Your task to perform on an android device: Open internet settings Image 0: 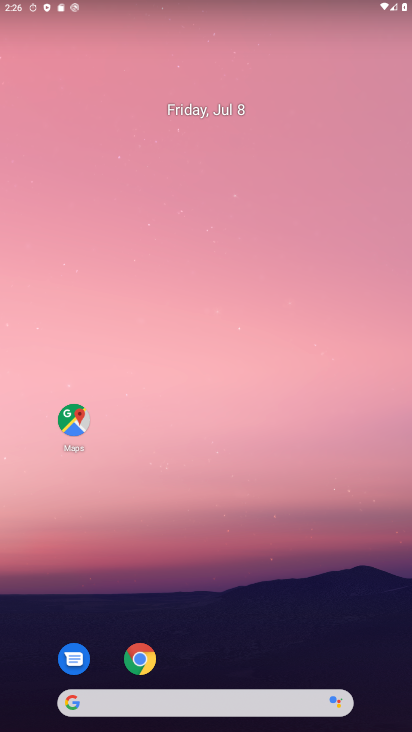
Step 0: drag from (255, 606) to (358, 29)
Your task to perform on an android device: Open internet settings Image 1: 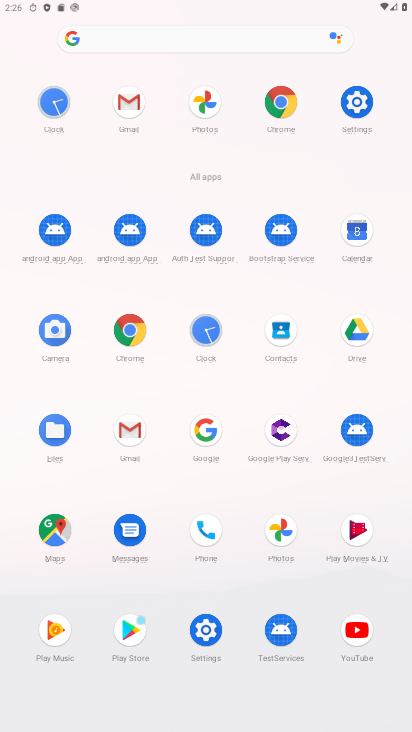
Step 1: click (358, 107)
Your task to perform on an android device: Open internet settings Image 2: 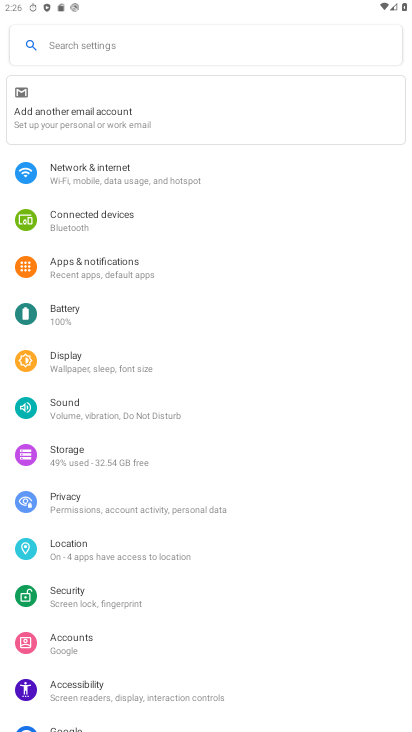
Step 2: click (218, 174)
Your task to perform on an android device: Open internet settings Image 3: 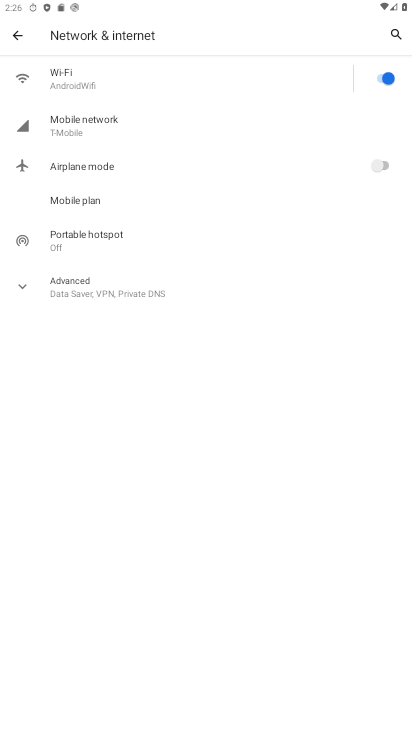
Step 3: click (86, 121)
Your task to perform on an android device: Open internet settings Image 4: 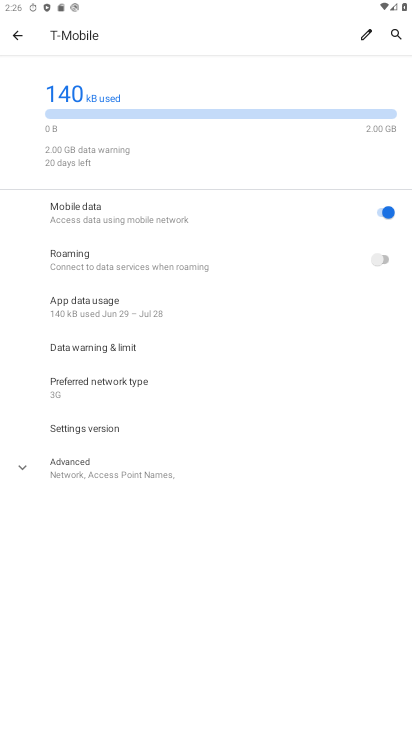
Step 4: task complete